Your task to perform on an android device: change keyboard looks Image 0: 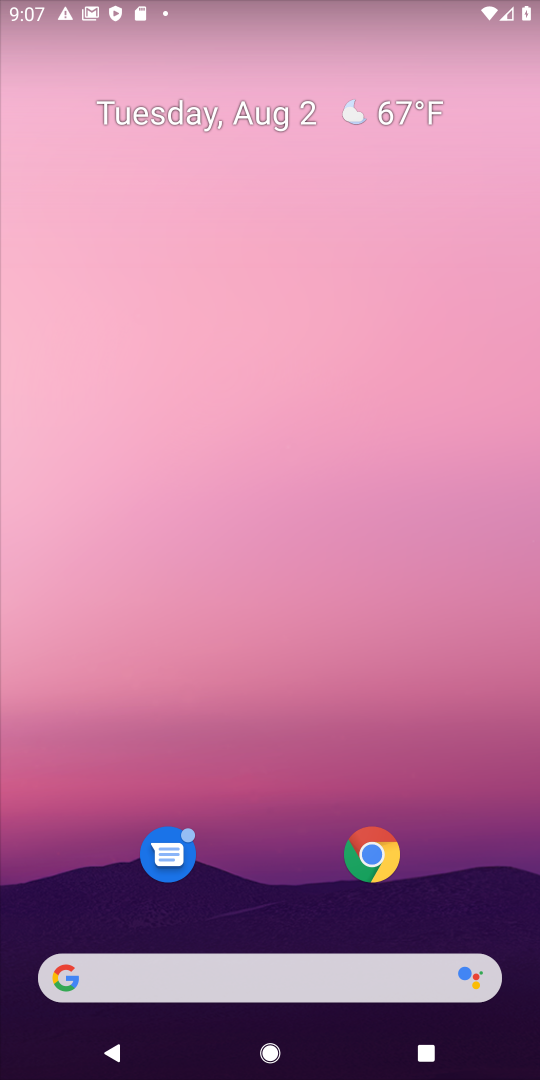
Step 0: drag from (289, 922) to (190, 72)
Your task to perform on an android device: change keyboard looks Image 1: 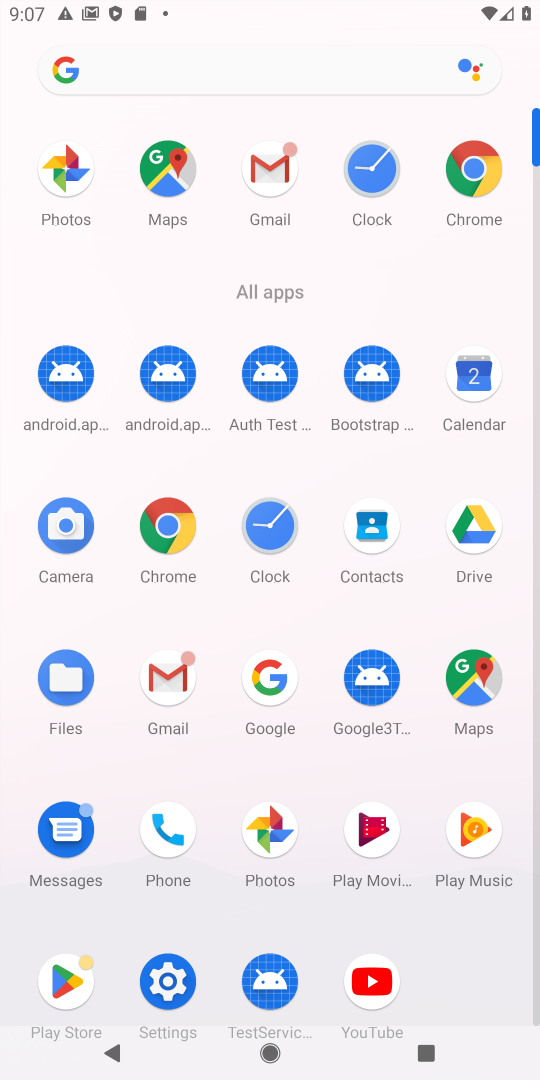
Step 1: click (173, 975)
Your task to perform on an android device: change keyboard looks Image 2: 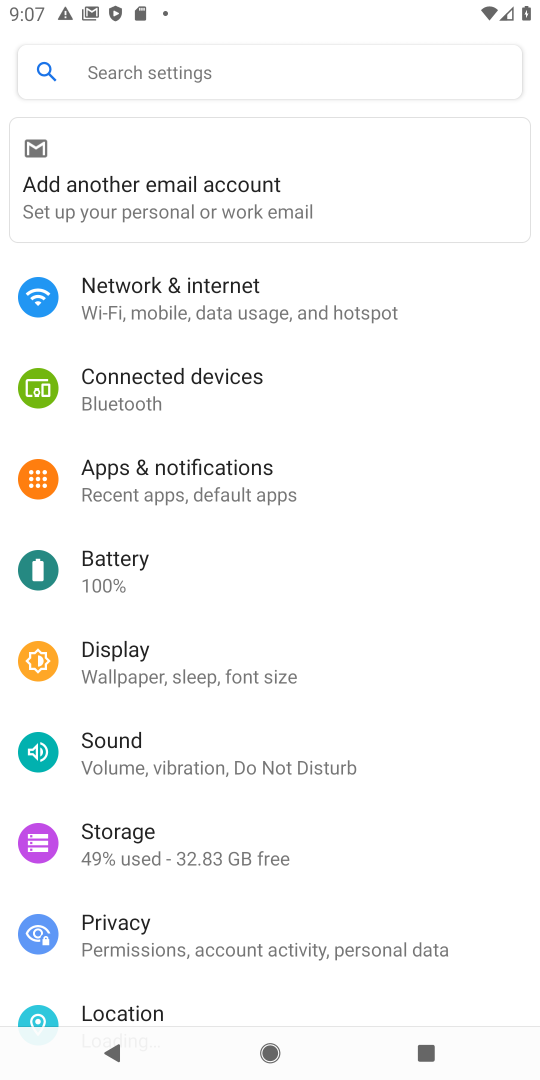
Step 2: drag from (294, 944) to (284, 144)
Your task to perform on an android device: change keyboard looks Image 3: 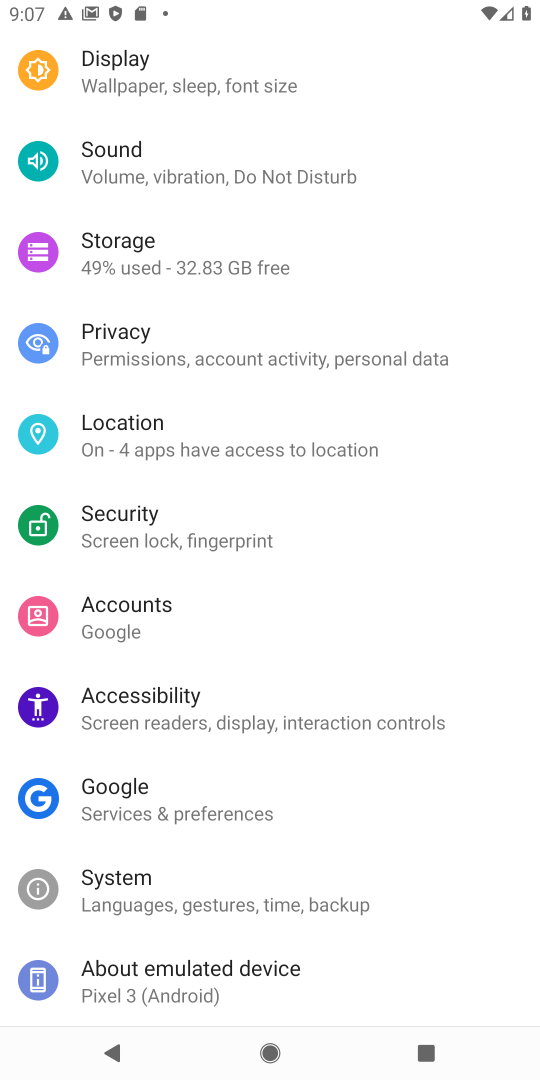
Step 3: click (142, 895)
Your task to perform on an android device: change keyboard looks Image 4: 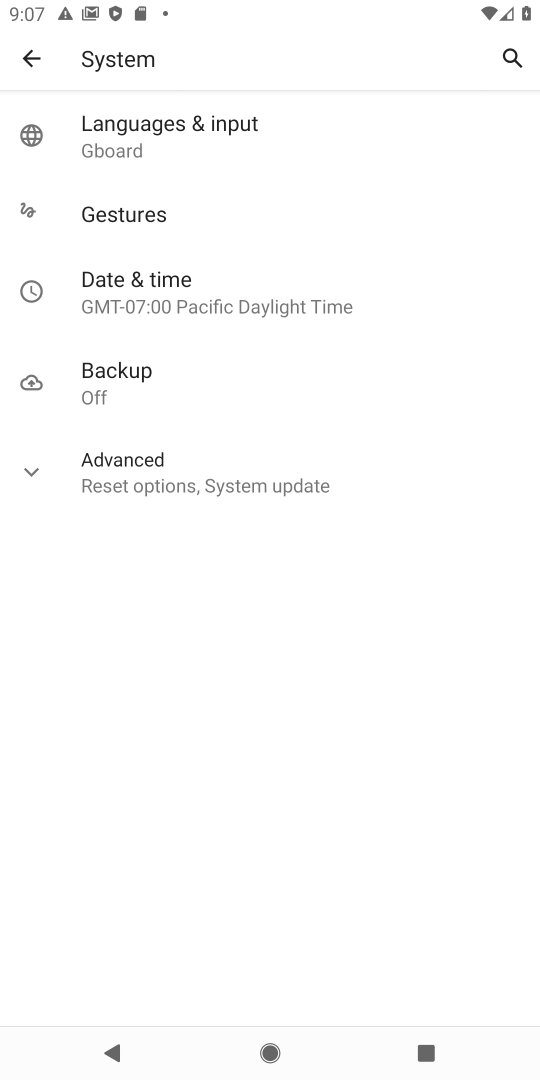
Step 4: click (82, 471)
Your task to perform on an android device: change keyboard looks Image 5: 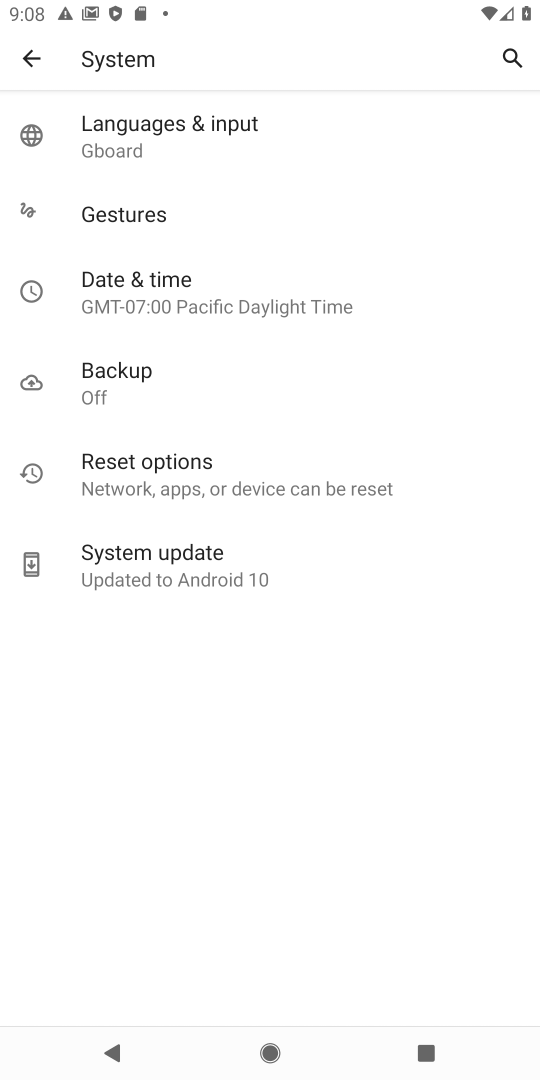
Step 5: click (178, 148)
Your task to perform on an android device: change keyboard looks Image 6: 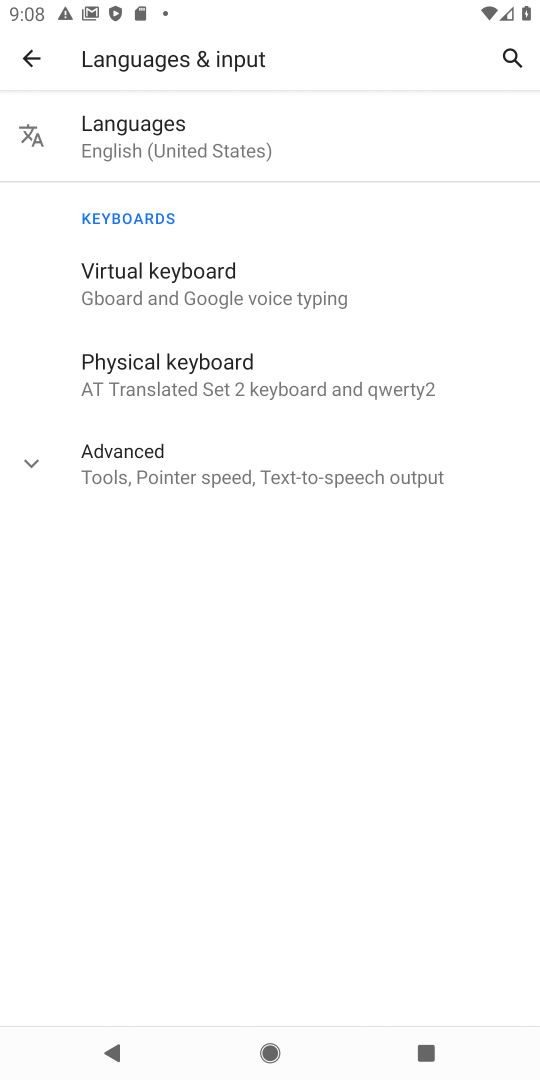
Step 6: click (198, 287)
Your task to perform on an android device: change keyboard looks Image 7: 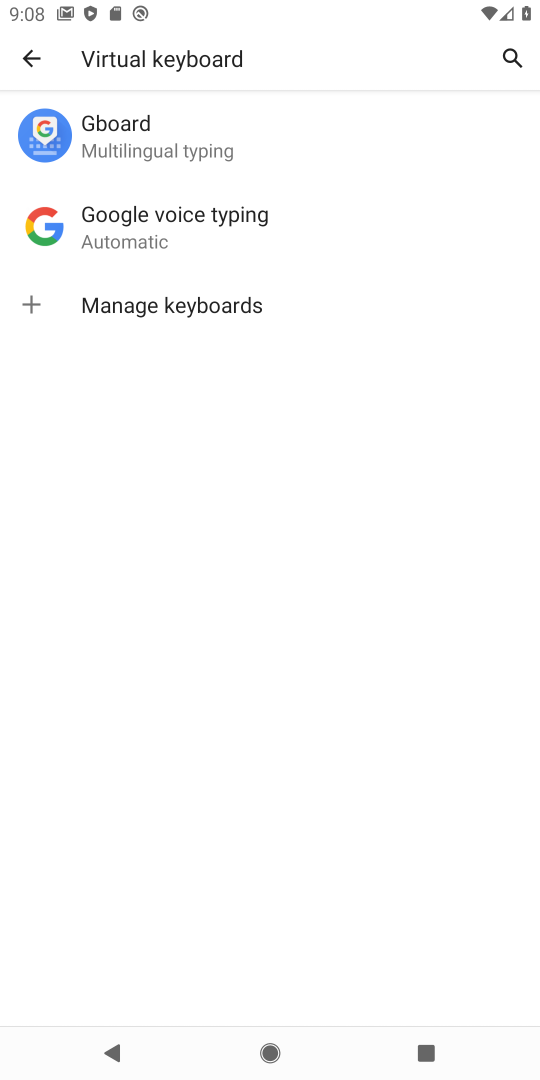
Step 7: click (111, 134)
Your task to perform on an android device: change keyboard looks Image 8: 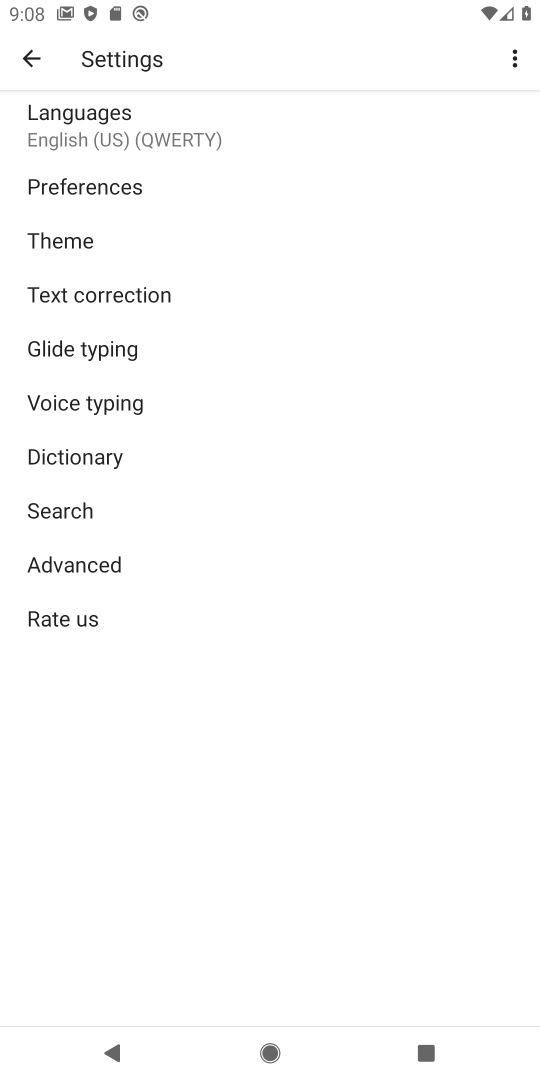
Step 8: click (71, 243)
Your task to perform on an android device: change keyboard looks Image 9: 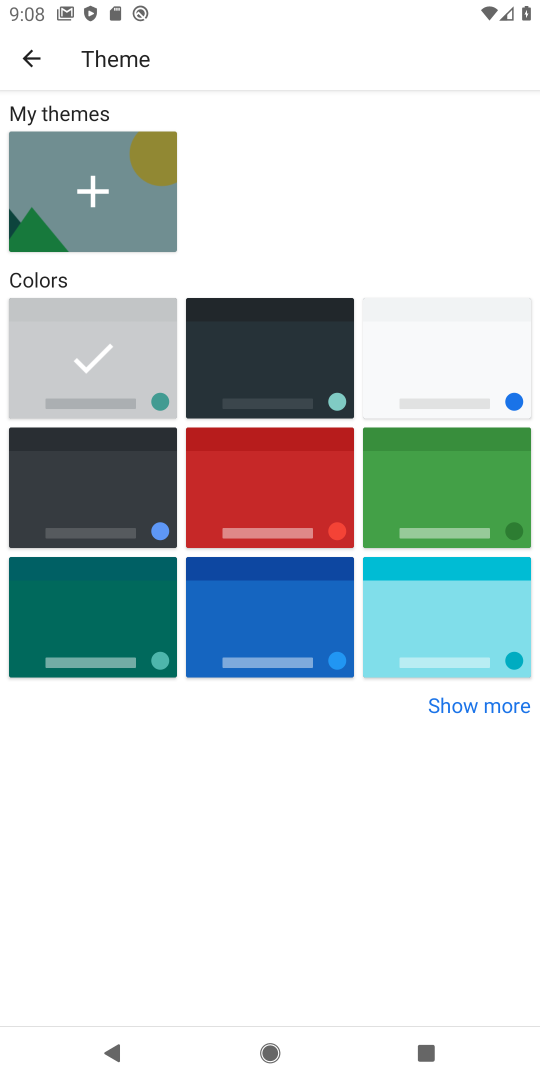
Step 9: click (256, 386)
Your task to perform on an android device: change keyboard looks Image 10: 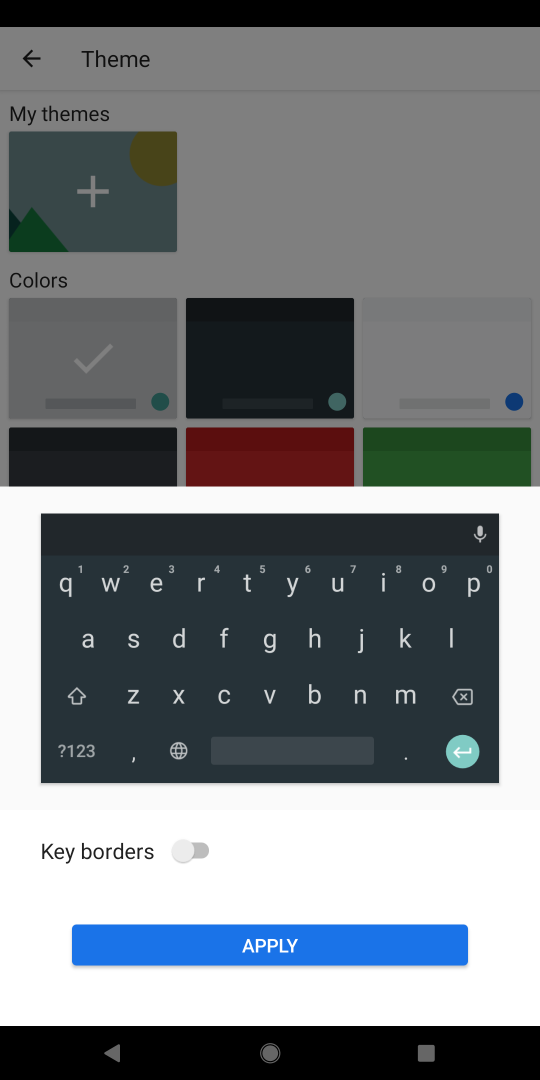
Step 10: click (294, 309)
Your task to perform on an android device: change keyboard looks Image 11: 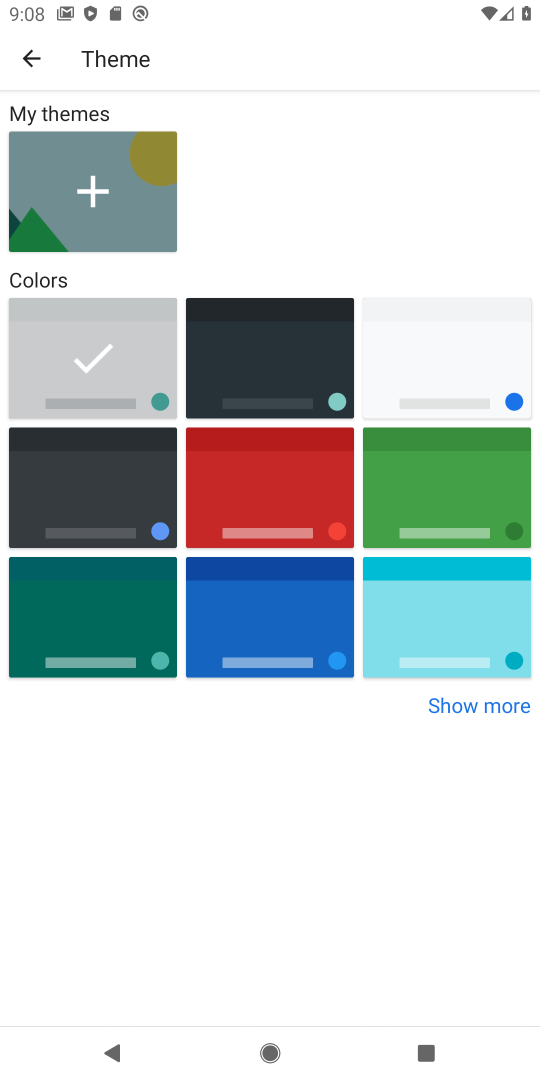
Step 11: click (299, 317)
Your task to perform on an android device: change keyboard looks Image 12: 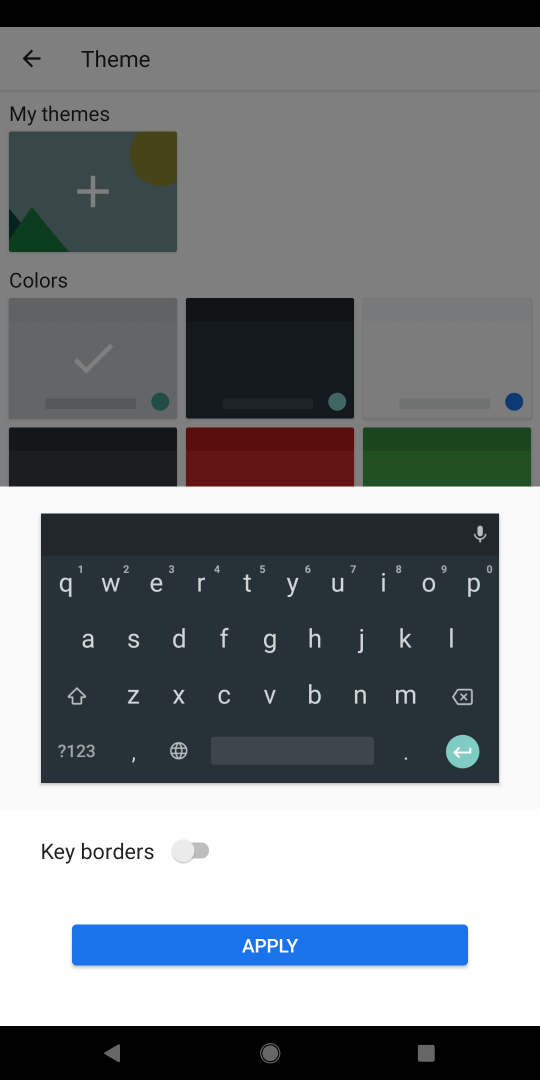
Step 12: click (334, 934)
Your task to perform on an android device: change keyboard looks Image 13: 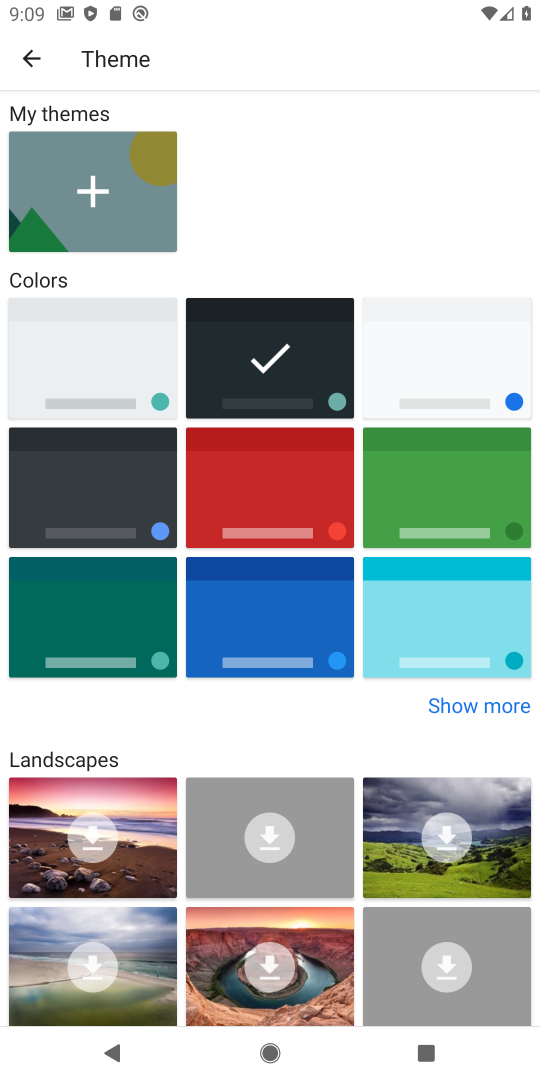
Step 13: task complete